Your task to perform on an android device: Go to network settings Image 0: 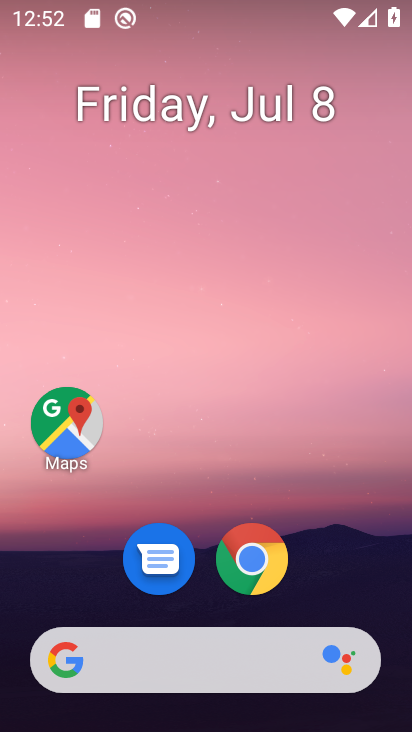
Step 0: drag from (219, 637) to (407, 269)
Your task to perform on an android device: Go to network settings Image 1: 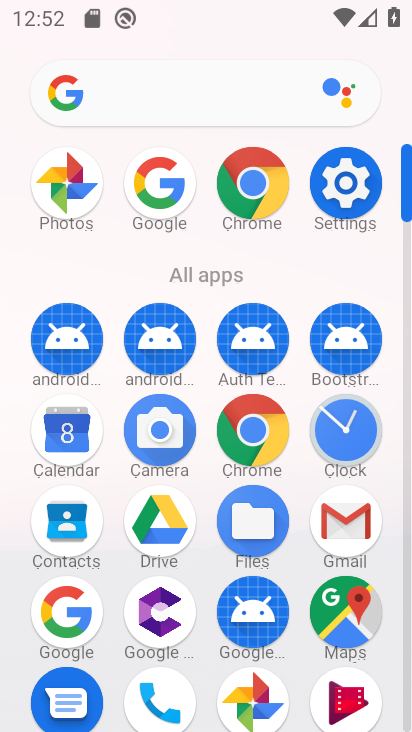
Step 1: click (357, 185)
Your task to perform on an android device: Go to network settings Image 2: 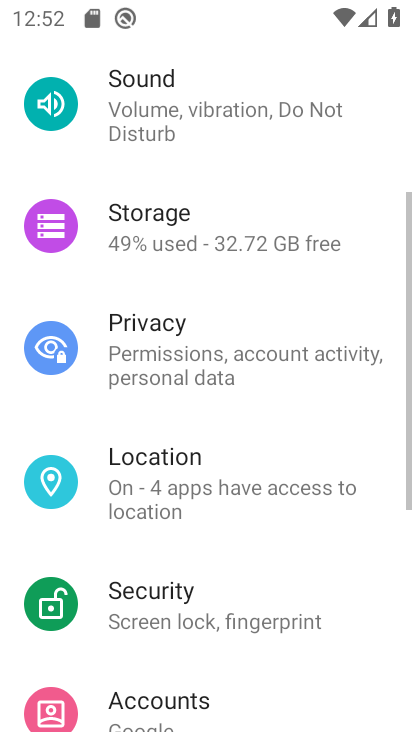
Step 2: drag from (196, 223) to (202, 697)
Your task to perform on an android device: Go to network settings Image 3: 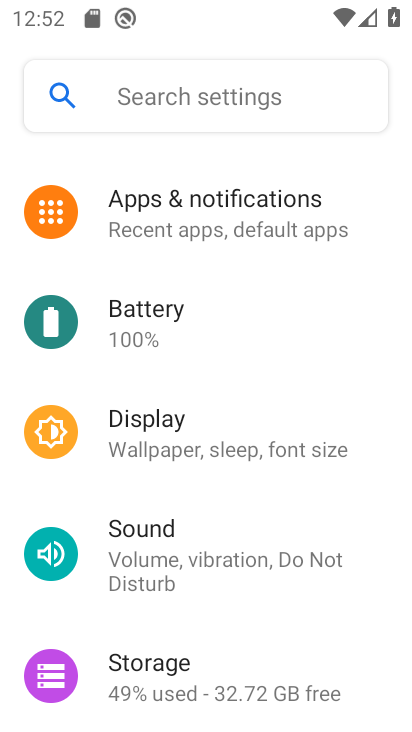
Step 3: drag from (231, 211) to (215, 620)
Your task to perform on an android device: Go to network settings Image 4: 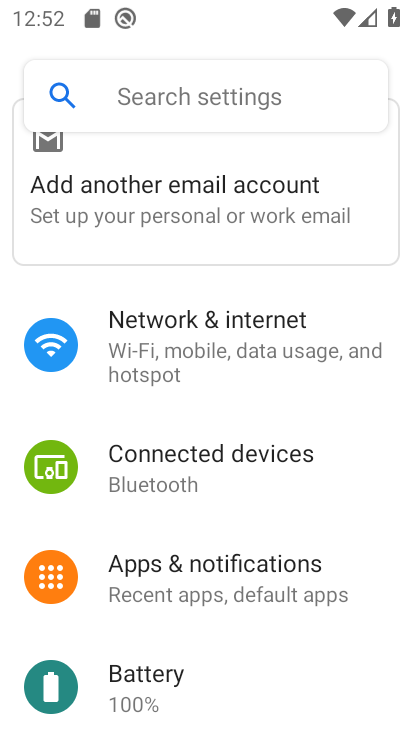
Step 4: click (189, 374)
Your task to perform on an android device: Go to network settings Image 5: 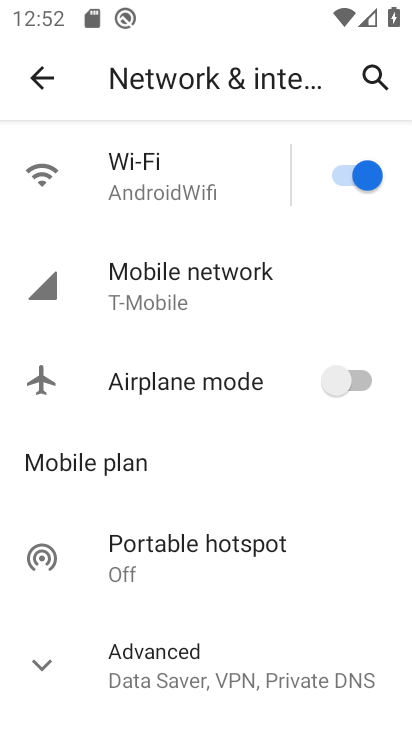
Step 5: click (195, 283)
Your task to perform on an android device: Go to network settings Image 6: 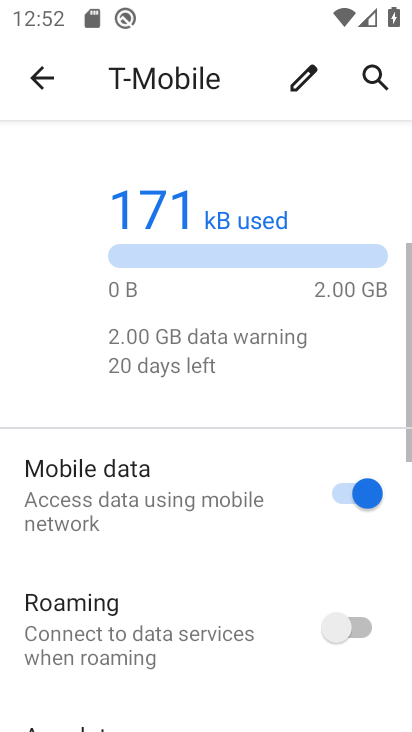
Step 6: task complete